Your task to perform on an android device: Go to wifi settings Image 0: 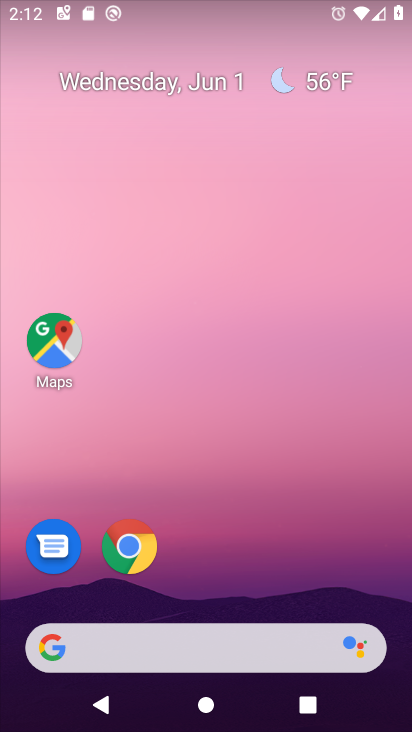
Step 0: drag from (161, 727) to (162, 22)
Your task to perform on an android device: Go to wifi settings Image 1: 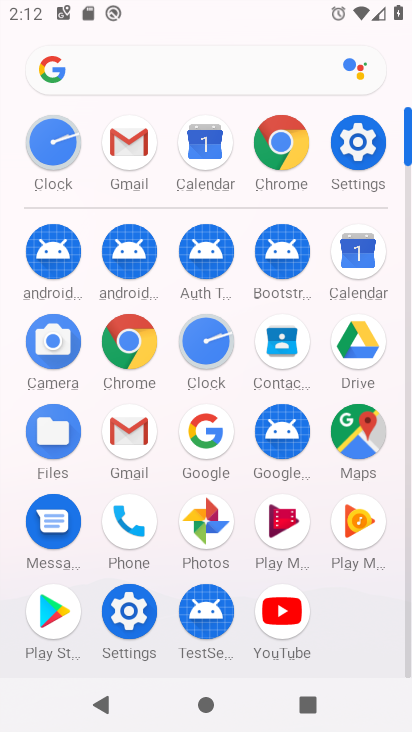
Step 1: click (365, 141)
Your task to perform on an android device: Go to wifi settings Image 2: 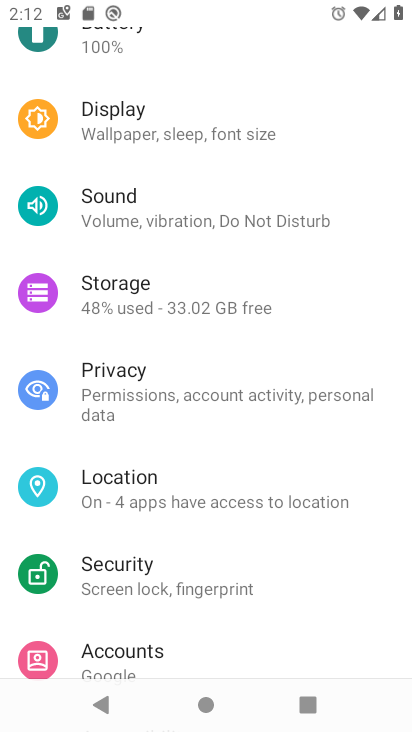
Step 2: drag from (160, 106) to (206, 631)
Your task to perform on an android device: Go to wifi settings Image 3: 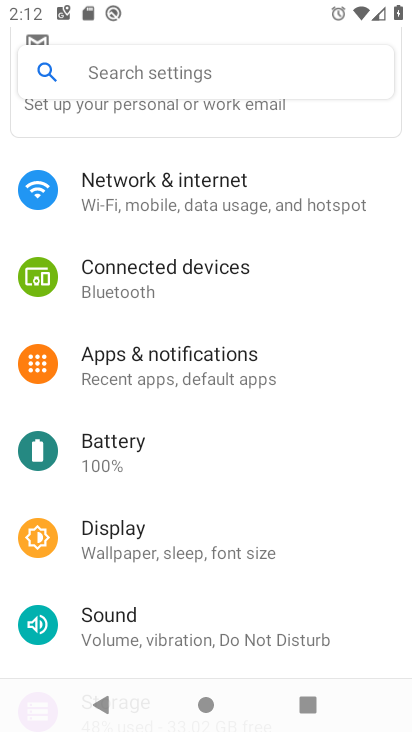
Step 3: click (171, 193)
Your task to perform on an android device: Go to wifi settings Image 4: 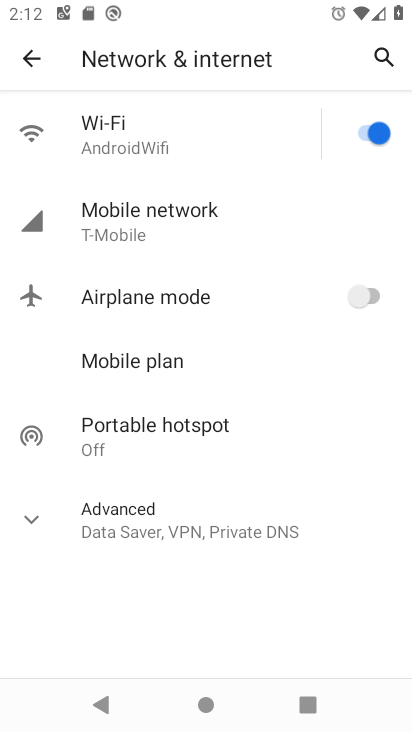
Step 4: click (129, 92)
Your task to perform on an android device: Go to wifi settings Image 5: 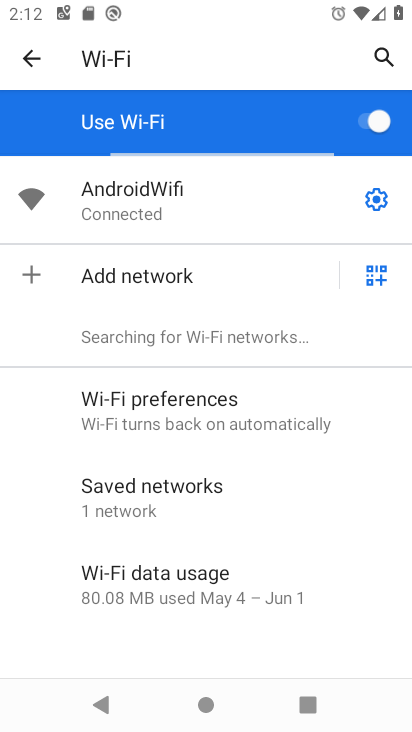
Step 5: task complete